Your task to perform on an android device: turn on the 12-hour format for clock Image 0: 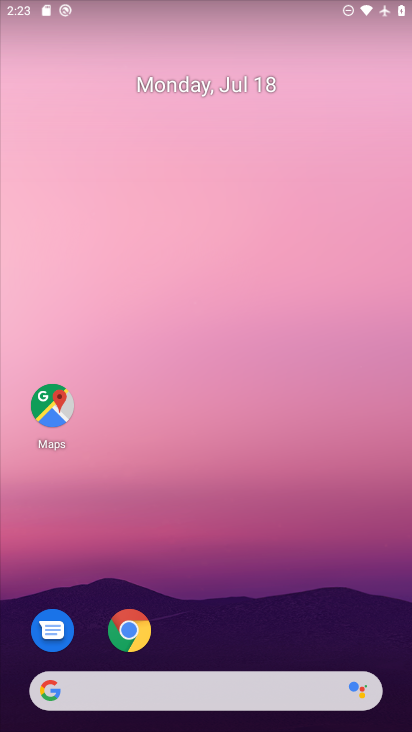
Step 0: press home button
Your task to perform on an android device: turn on the 12-hour format for clock Image 1: 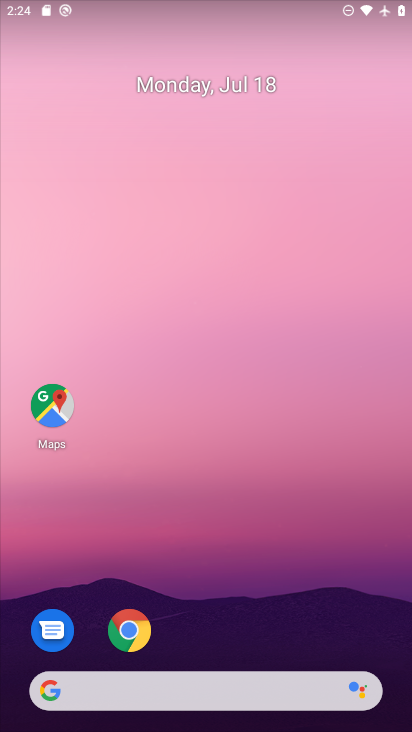
Step 1: drag from (237, 594) to (272, 3)
Your task to perform on an android device: turn on the 12-hour format for clock Image 2: 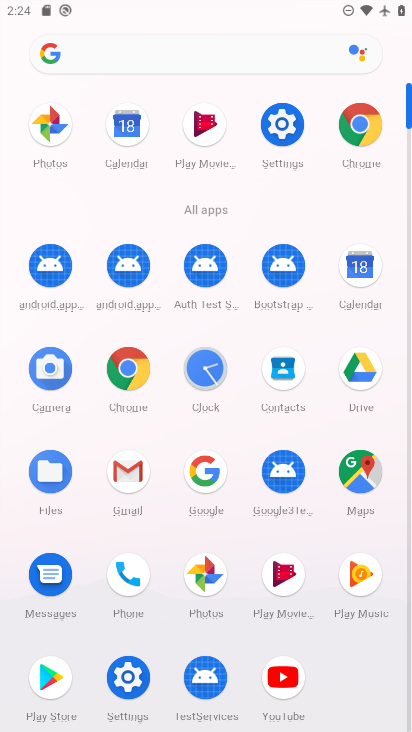
Step 2: click (287, 141)
Your task to perform on an android device: turn on the 12-hour format for clock Image 3: 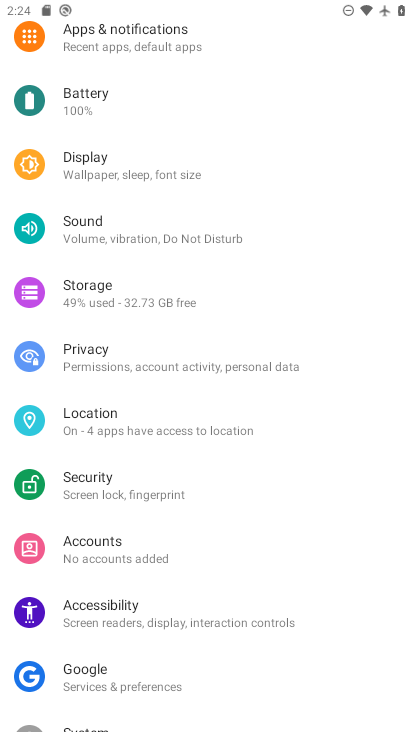
Step 3: drag from (307, 677) to (319, 2)
Your task to perform on an android device: turn on the 12-hour format for clock Image 4: 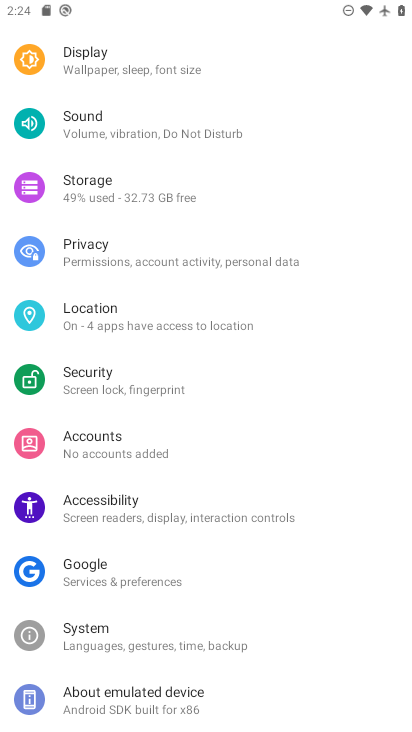
Step 4: click (80, 637)
Your task to perform on an android device: turn on the 12-hour format for clock Image 5: 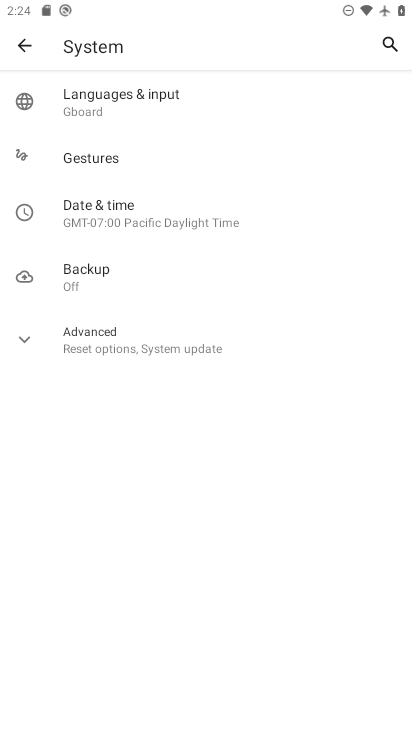
Step 5: click (153, 213)
Your task to perform on an android device: turn on the 12-hour format for clock Image 6: 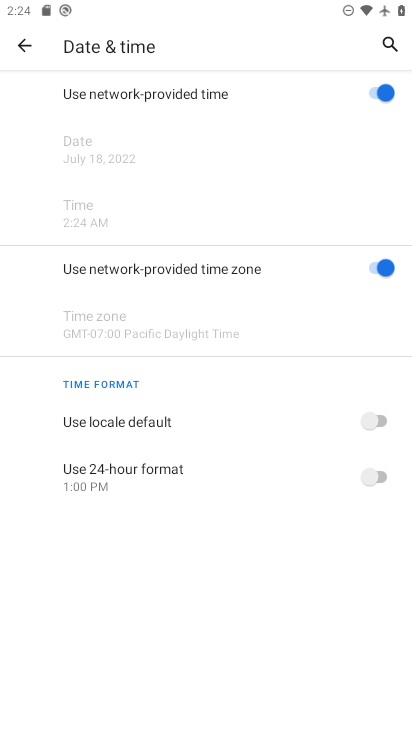
Step 6: click (364, 425)
Your task to perform on an android device: turn on the 12-hour format for clock Image 7: 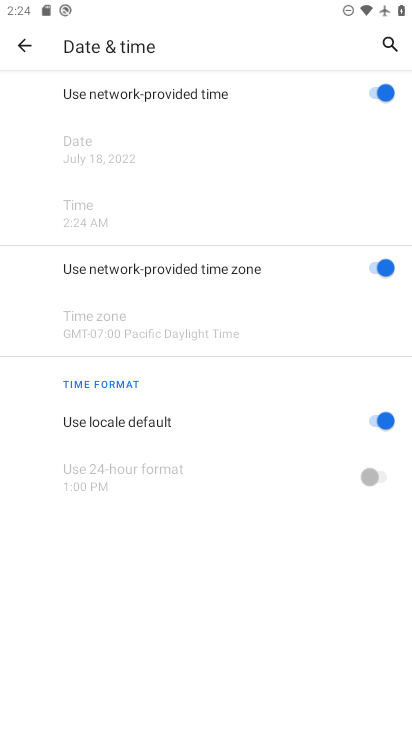
Step 7: click (361, 483)
Your task to perform on an android device: turn on the 12-hour format for clock Image 8: 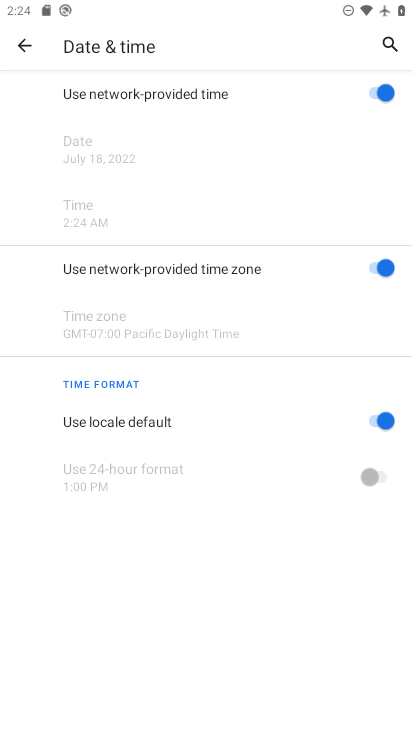
Step 8: click (368, 477)
Your task to perform on an android device: turn on the 12-hour format for clock Image 9: 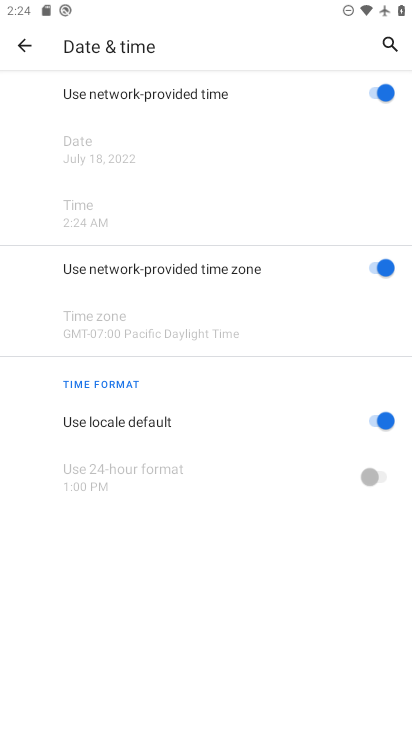
Step 9: click (384, 414)
Your task to perform on an android device: turn on the 12-hour format for clock Image 10: 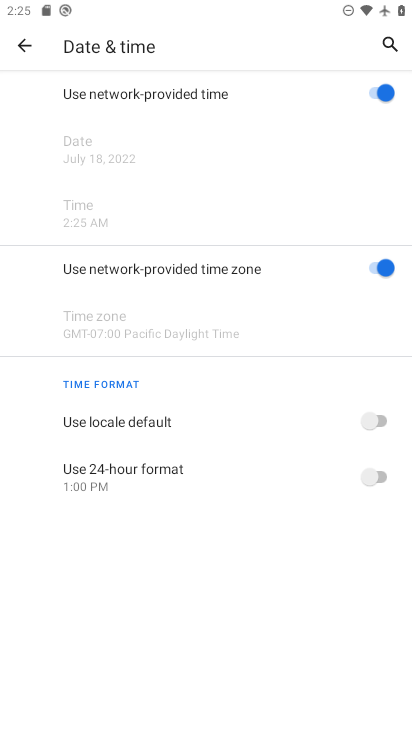
Step 10: task complete